Your task to perform on an android device: Open the calendar app, open the side menu, and click the "Day" option Image 0: 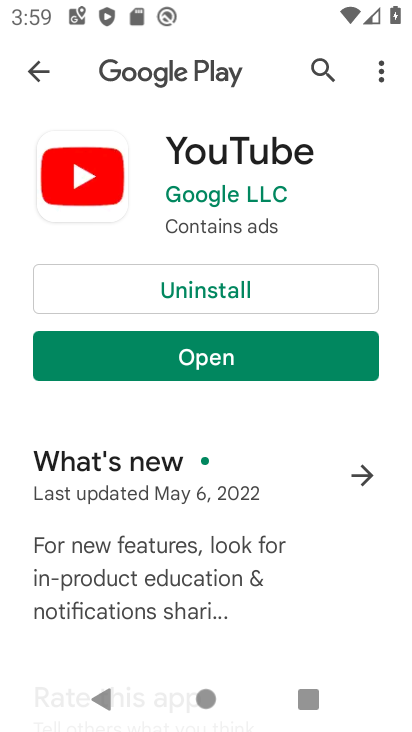
Step 0: press home button
Your task to perform on an android device: Open the calendar app, open the side menu, and click the "Day" option Image 1: 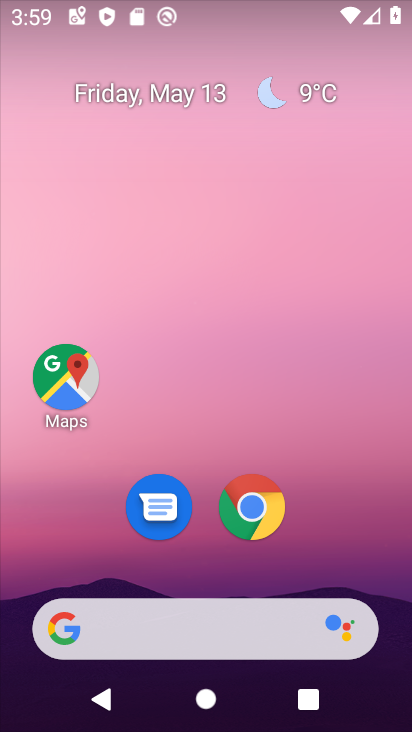
Step 1: drag from (342, 427) to (325, 41)
Your task to perform on an android device: Open the calendar app, open the side menu, and click the "Day" option Image 2: 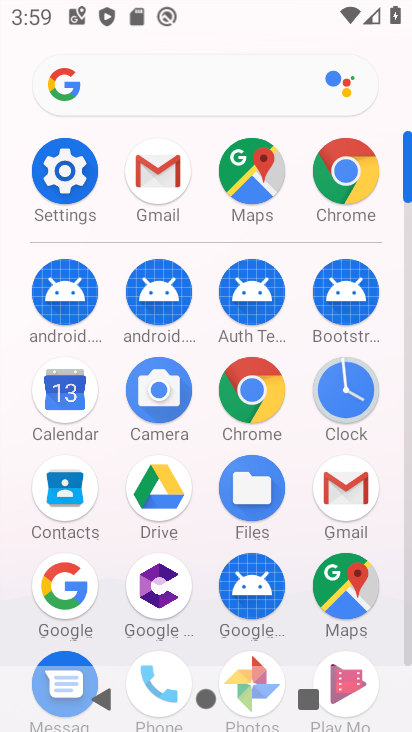
Step 2: click (67, 409)
Your task to perform on an android device: Open the calendar app, open the side menu, and click the "Day" option Image 3: 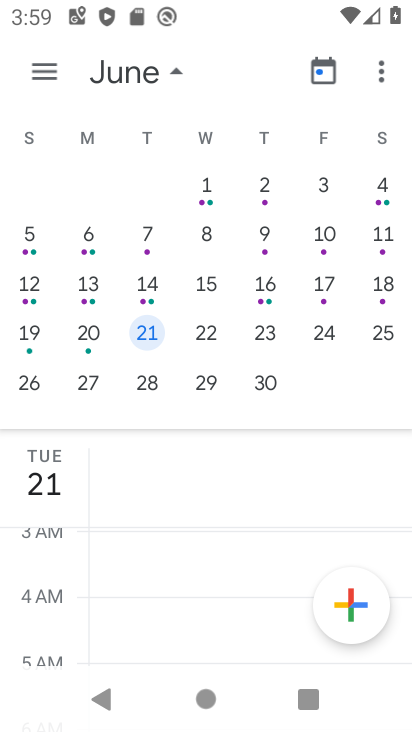
Step 3: click (38, 60)
Your task to perform on an android device: Open the calendar app, open the side menu, and click the "Day" option Image 4: 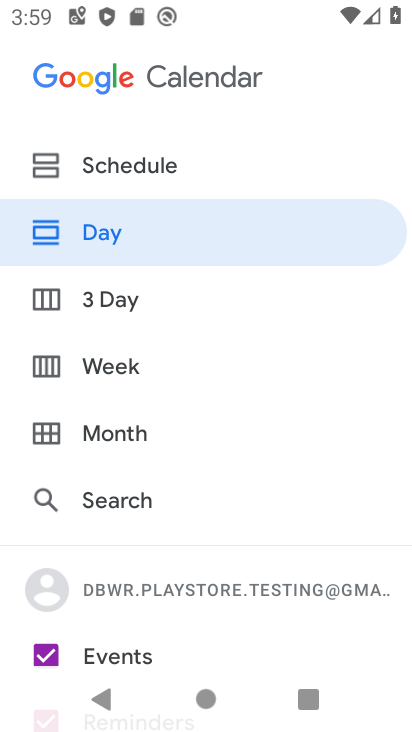
Step 4: click (74, 246)
Your task to perform on an android device: Open the calendar app, open the side menu, and click the "Day" option Image 5: 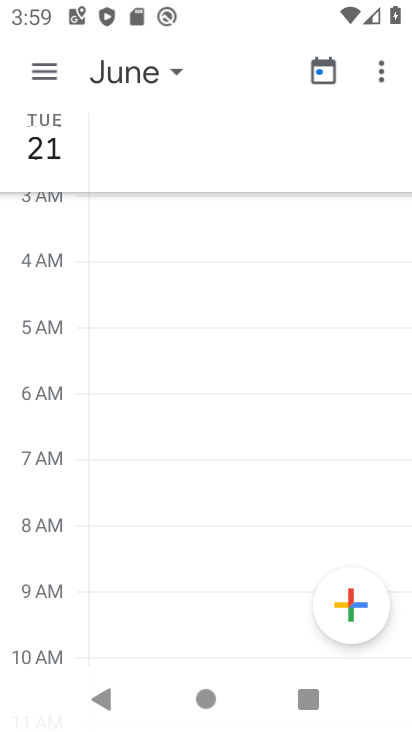
Step 5: task complete